Your task to perform on an android device: turn on data saver in the chrome app Image 0: 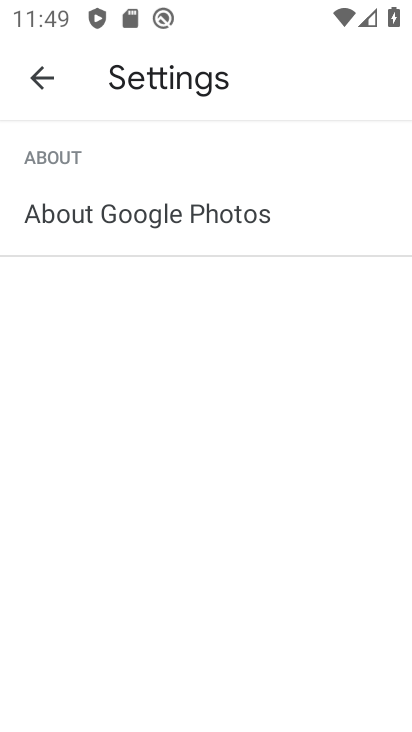
Step 0: press home button
Your task to perform on an android device: turn on data saver in the chrome app Image 1: 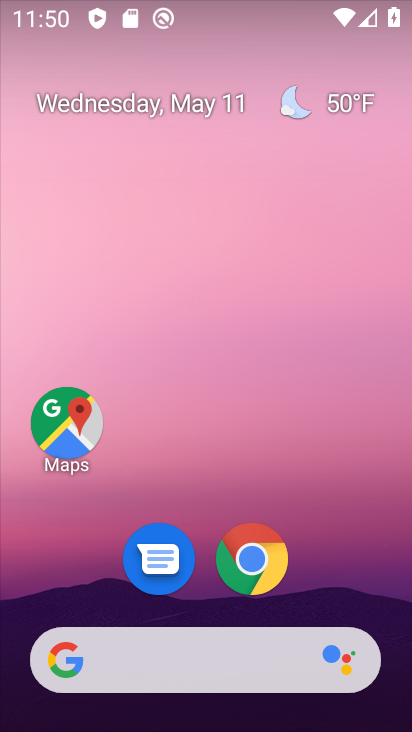
Step 1: drag from (327, 574) to (375, 146)
Your task to perform on an android device: turn on data saver in the chrome app Image 2: 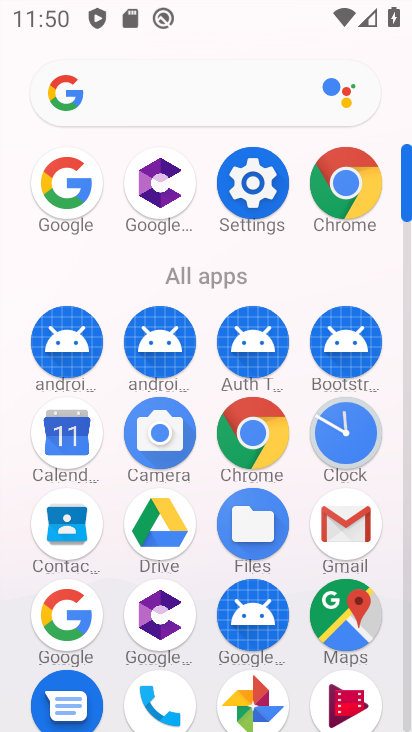
Step 2: click (345, 229)
Your task to perform on an android device: turn on data saver in the chrome app Image 3: 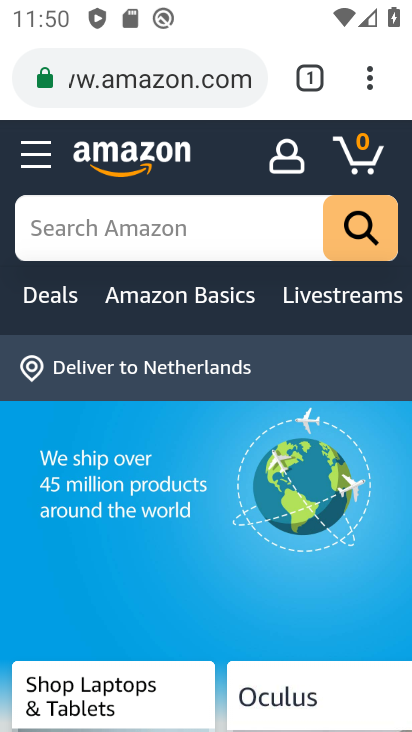
Step 3: click (372, 81)
Your task to perform on an android device: turn on data saver in the chrome app Image 4: 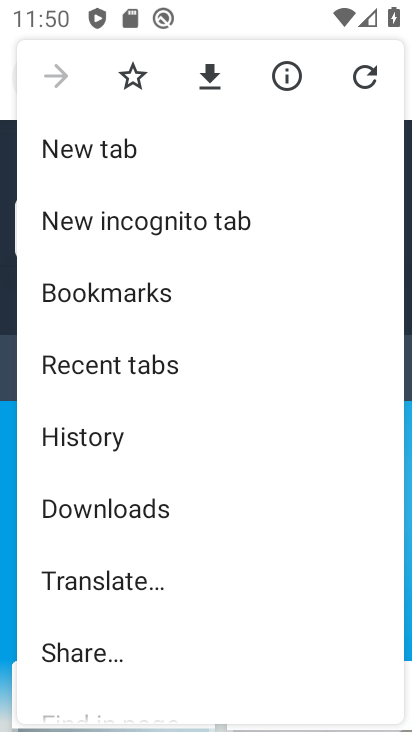
Step 4: drag from (179, 606) to (174, 256)
Your task to perform on an android device: turn on data saver in the chrome app Image 5: 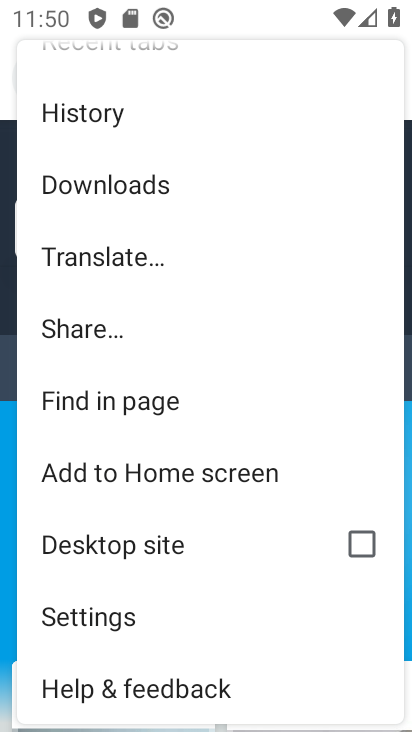
Step 5: click (141, 628)
Your task to perform on an android device: turn on data saver in the chrome app Image 6: 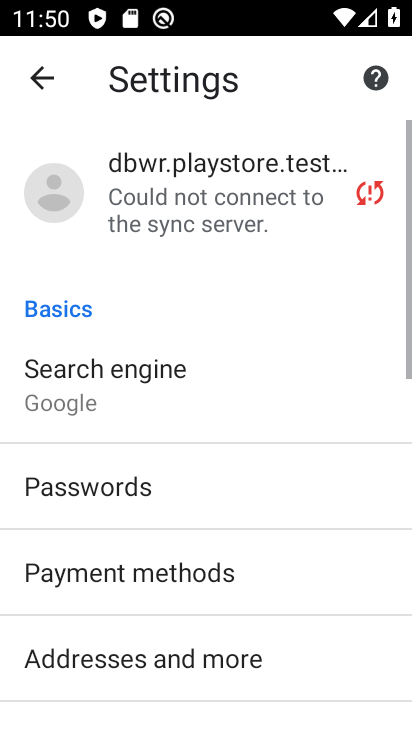
Step 6: drag from (139, 639) to (176, 245)
Your task to perform on an android device: turn on data saver in the chrome app Image 7: 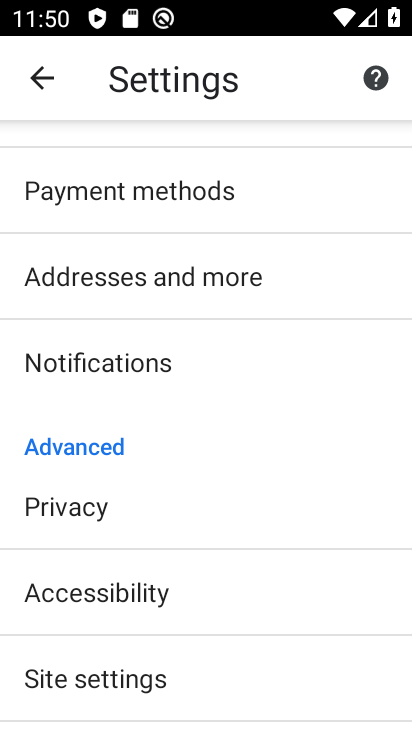
Step 7: drag from (150, 639) to (164, 240)
Your task to perform on an android device: turn on data saver in the chrome app Image 8: 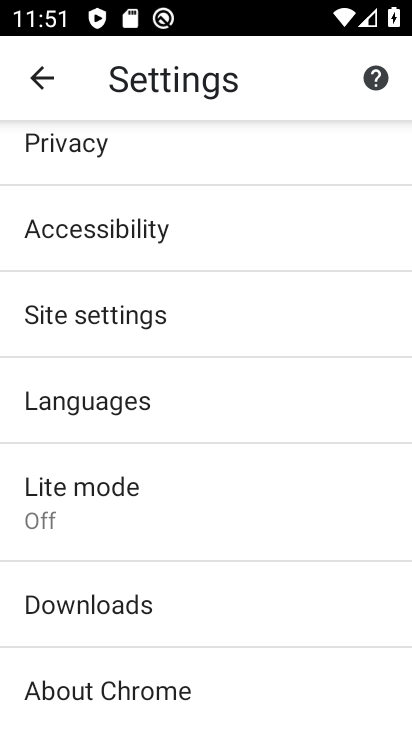
Step 8: drag from (128, 619) to (172, 380)
Your task to perform on an android device: turn on data saver in the chrome app Image 9: 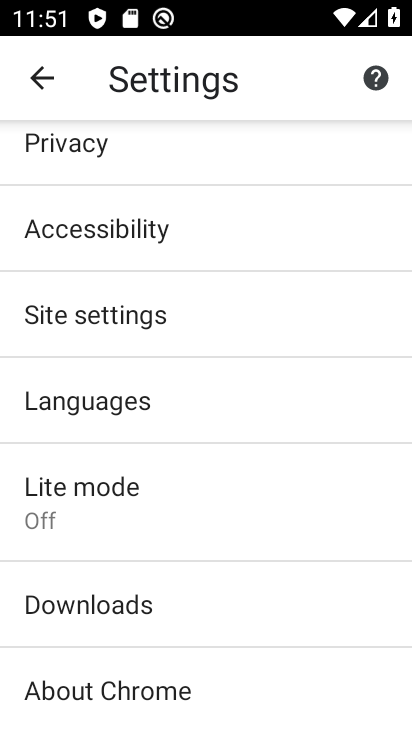
Step 9: click (154, 533)
Your task to perform on an android device: turn on data saver in the chrome app Image 10: 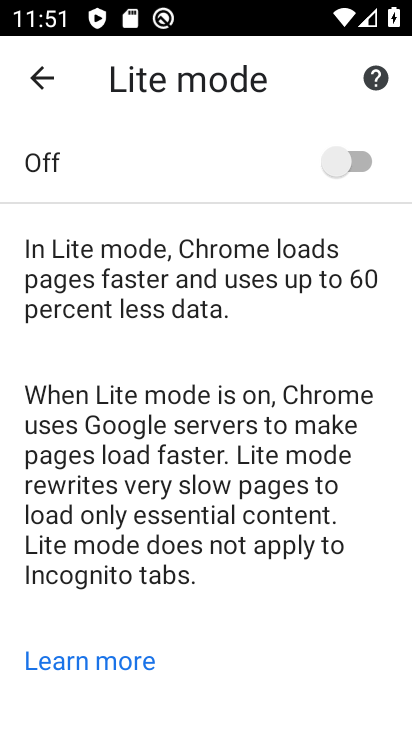
Step 10: click (362, 163)
Your task to perform on an android device: turn on data saver in the chrome app Image 11: 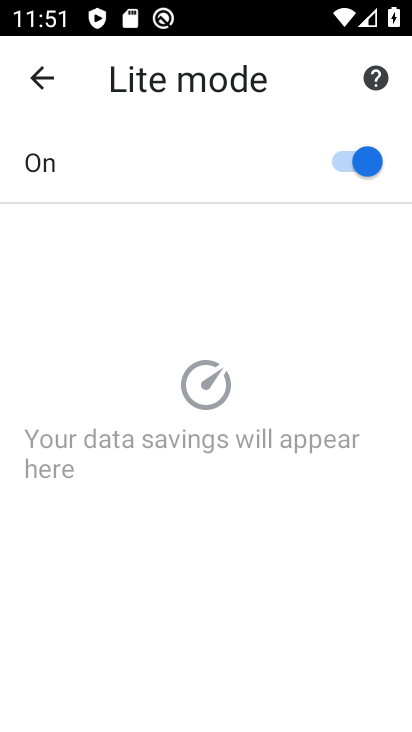
Step 11: task complete